Your task to perform on an android device: Show me popular games on the Play Store Image 0: 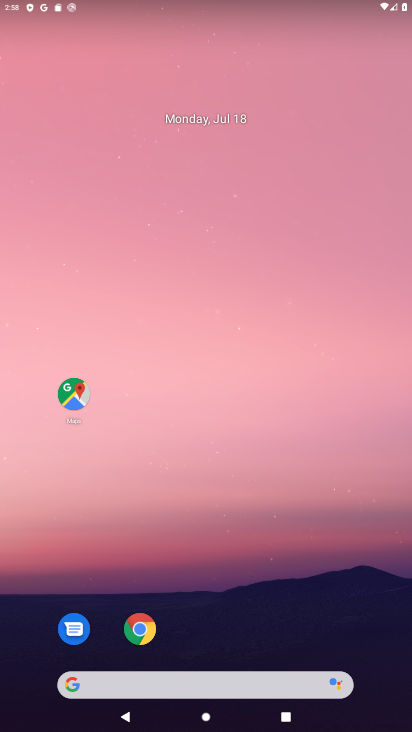
Step 0: drag from (234, 655) to (177, 121)
Your task to perform on an android device: Show me popular games on the Play Store Image 1: 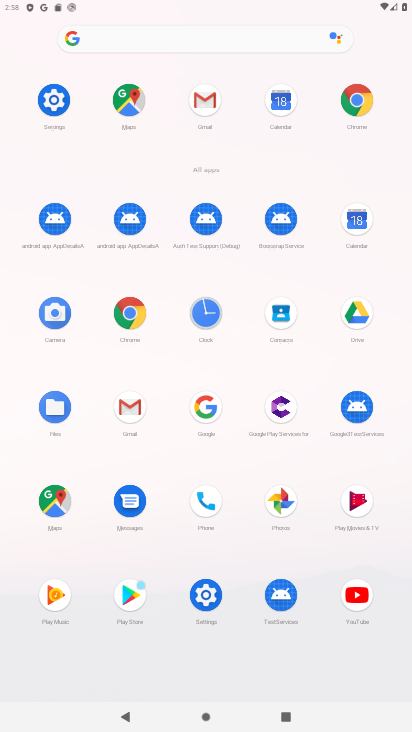
Step 1: click (130, 584)
Your task to perform on an android device: Show me popular games on the Play Store Image 2: 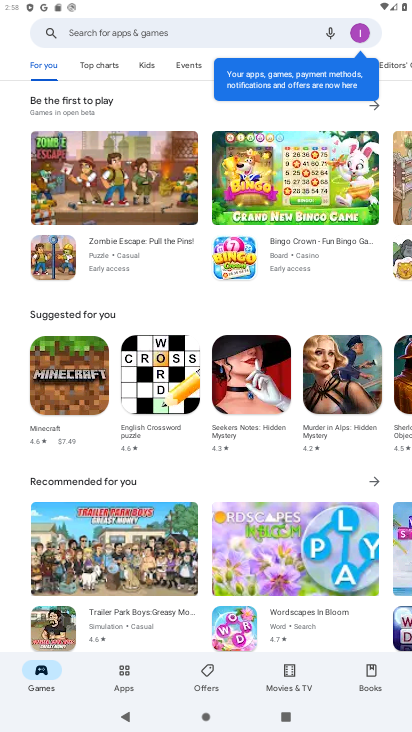
Step 2: task complete